Your task to perform on an android device: Show me recent news Image 0: 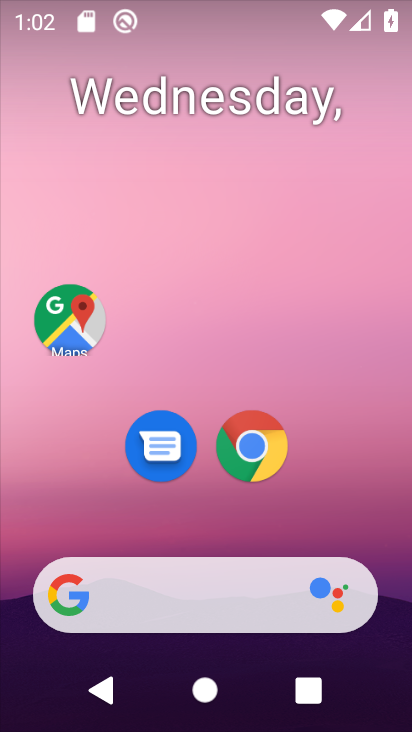
Step 0: drag from (360, 477) to (322, 81)
Your task to perform on an android device: Show me recent news Image 1: 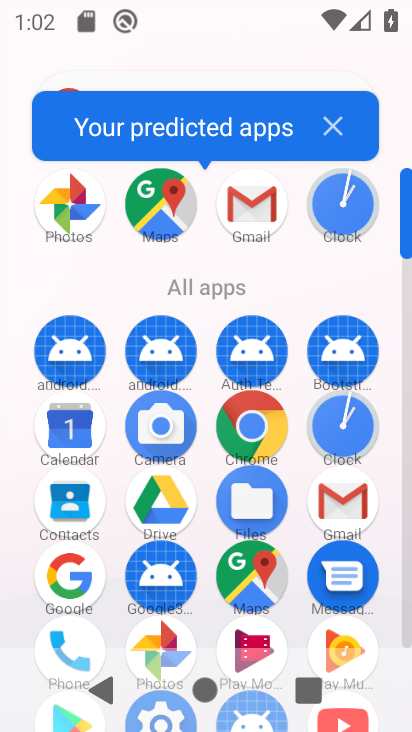
Step 1: click (85, 575)
Your task to perform on an android device: Show me recent news Image 2: 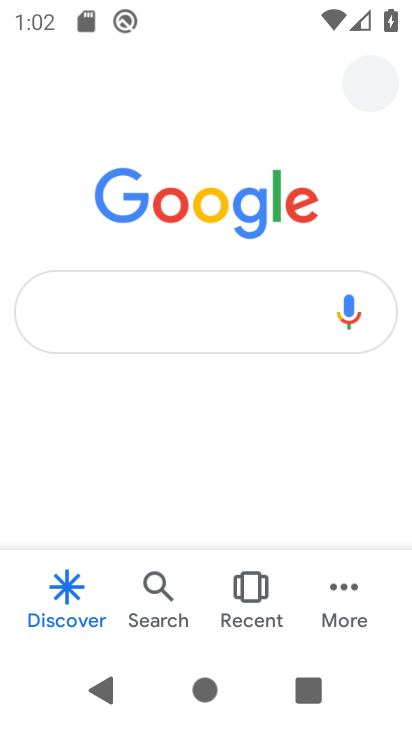
Step 2: click (197, 301)
Your task to perform on an android device: Show me recent news Image 3: 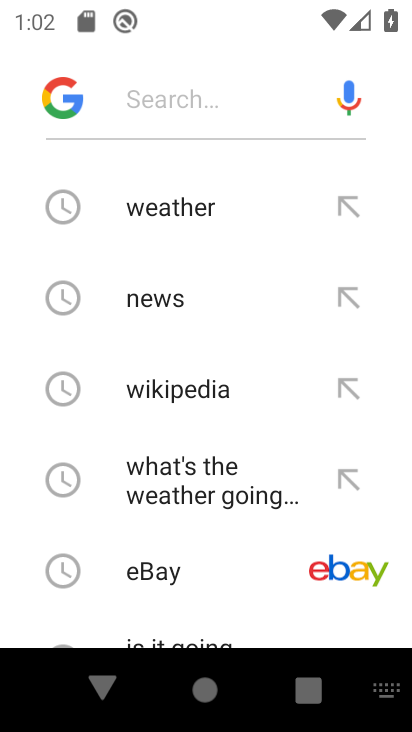
Step 3: drag from (244, 329) to (268, 26)
Your task to perform on an android device: Show me recent news Image 4: 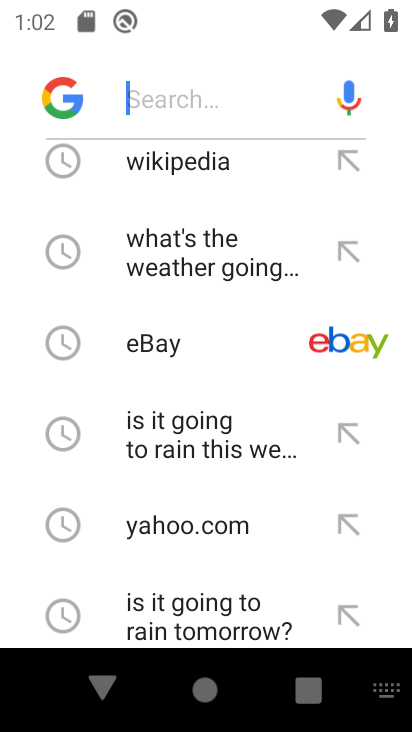
Step 4: drag from (249, 478) to (247, 119)
Your task to perform on an android device: Show me recent news Image 5: 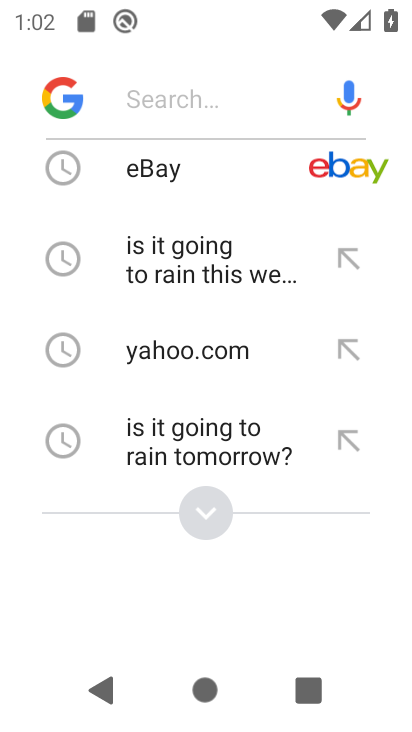
Step 5: type "recent news"
Your task to perform on an android device: Show me recent news Image 6: 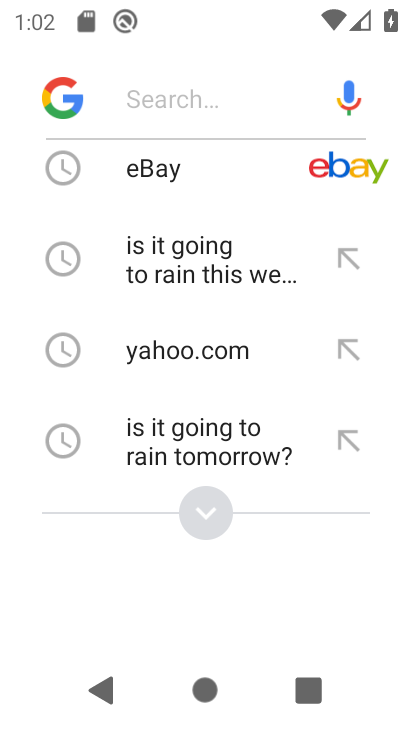
Step 6: click (203, 85)
Your task to perform on an android device: Show me recent news Image 7: 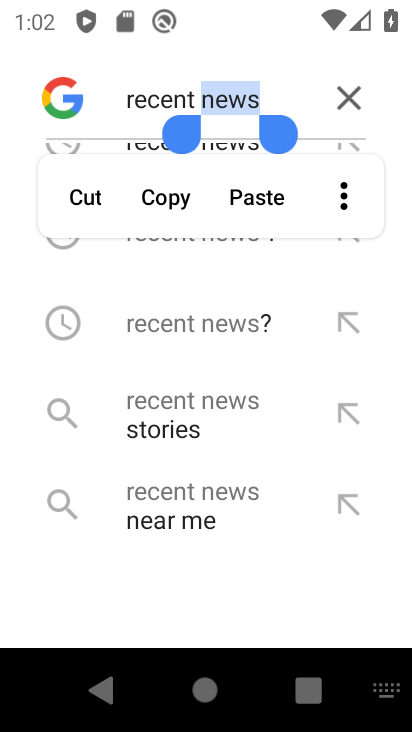
Step 7: click (166, 344)
Your task to perform on an android device: Show me recent news Image 8: 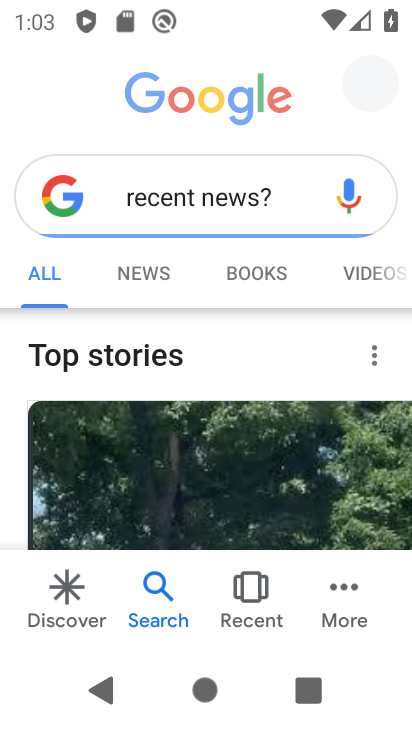
Step 8: task complete